Your task to perform on an android device: Open eBay Image 0: 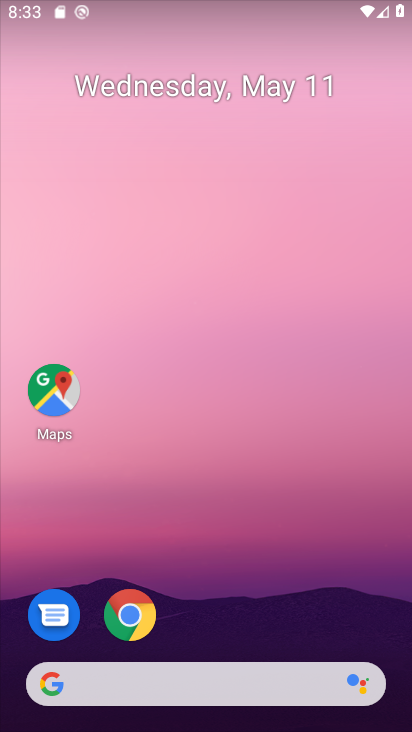
Step 0: drag from (305, 543) to (224, 17)
Your task to perform on an android device: Open eBay Image 1: 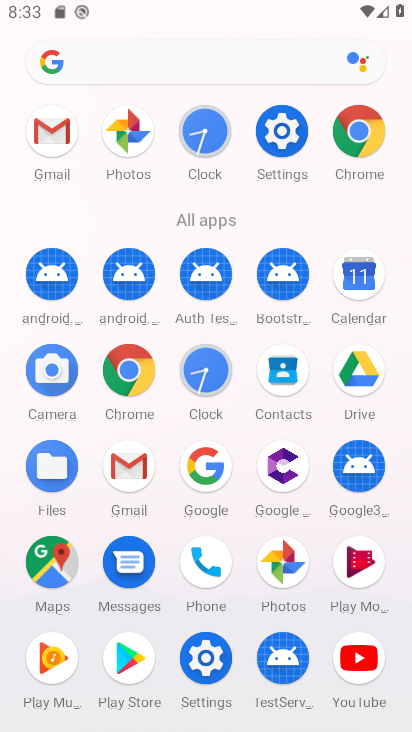
Step 1: click (363, 119)
Your task to perform on an android device: Open eBay Image 2: 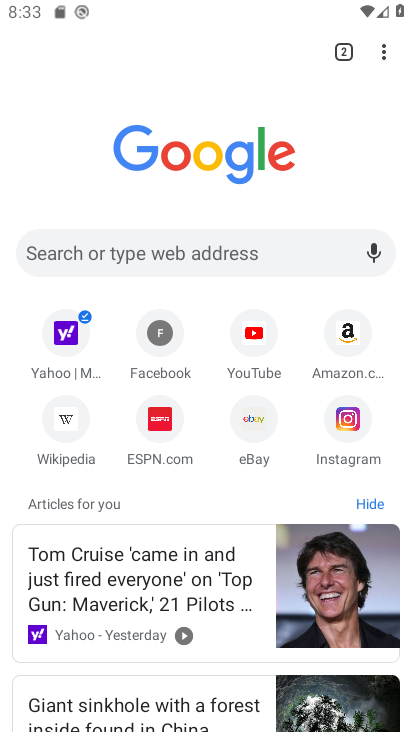
Step 2: click (263, 418)
Your task to perform on an android device: Open eBay Image 3: 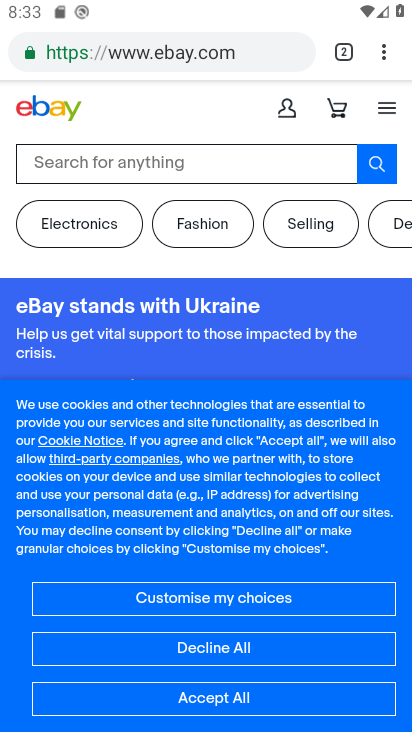
Step 3: task complete